Your task to perform on an android device: toggle javascript in the chrome app Image 0: 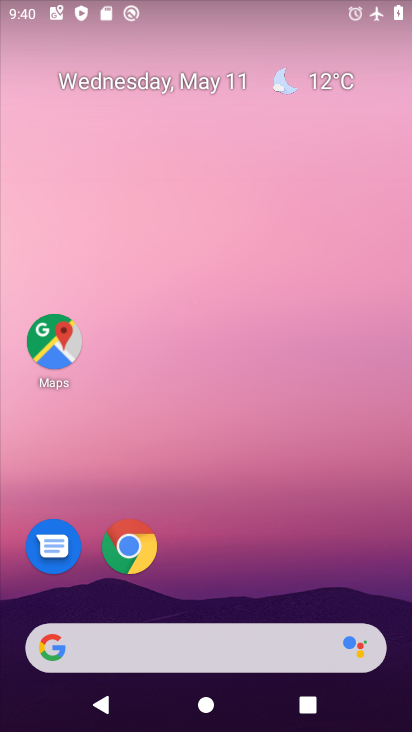
Step 0: click (129, 548)
Your task to perform on an android device: toggle javascript in the chrome app Image 1: 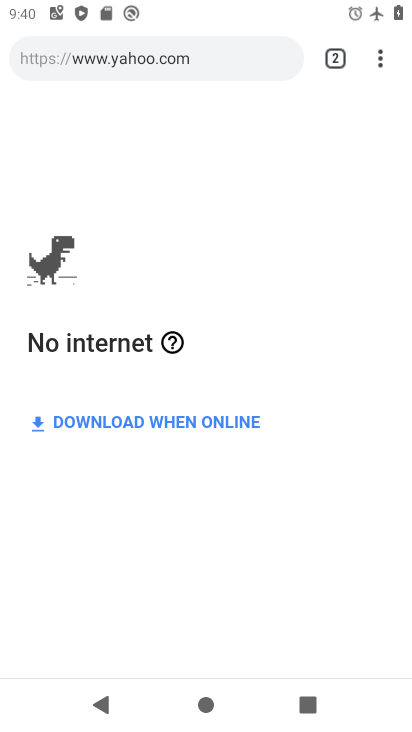
Step 1: click (377, 67)
Your task to perform on an android device: toggle javascript in the chrome app Image 2: 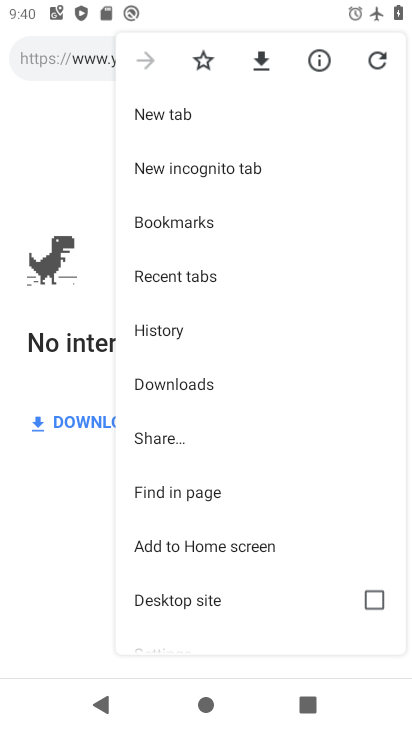
Step 2: drag from (294, 540) to (289, 181)
Your task to perform on an android device: toggle javascript in the chrome app Image 3: 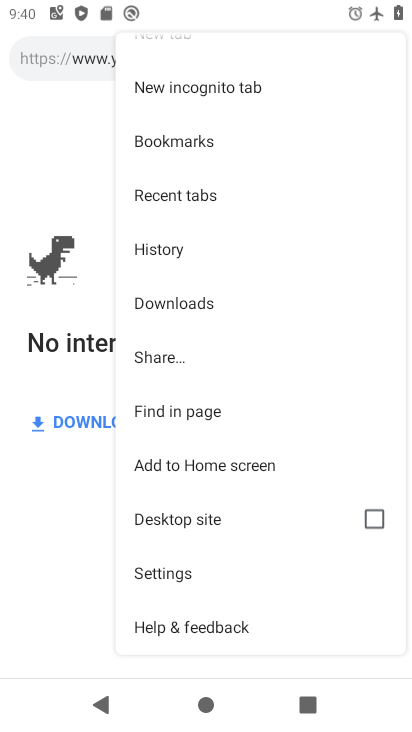
Step 3: click (162, 572)
Your task to perform on an android device: toggle javascript in the chrome app Image 4: 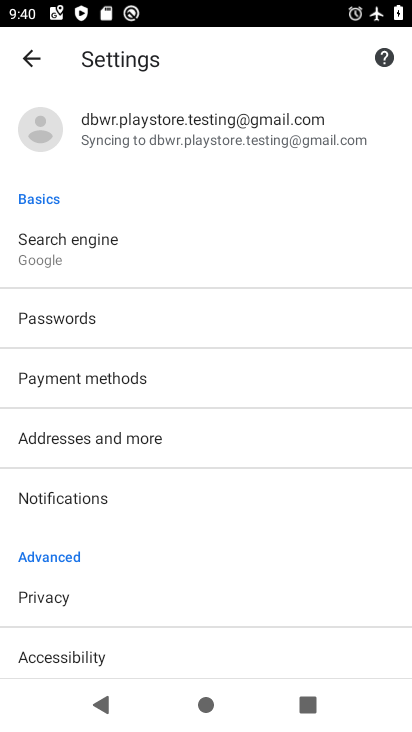
Step 4: drag from (191, 653) to (234, 199)
Your task to perform on an android device: toggle javascript in the chrome app Image 5: 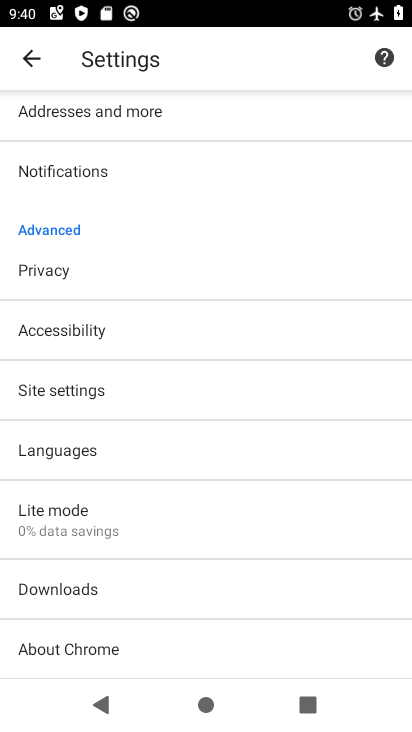
Step 5: click (43, 388)
Your task to perform on an android device: toggle javascript in the chrome app Image 6: 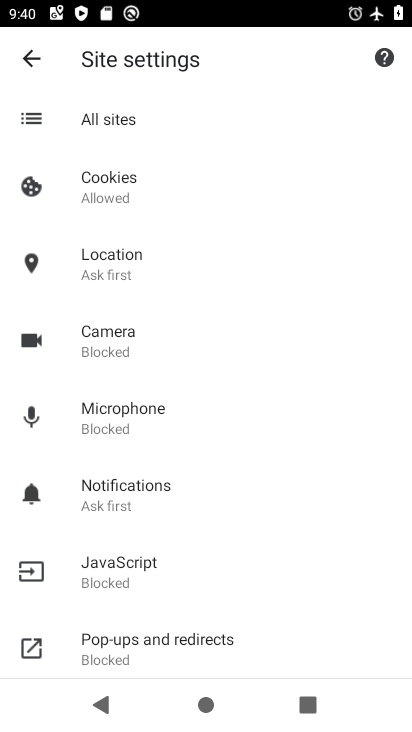
Step 6: click (108, 561)
Your task to perform on an android device: toggle javascript in the chrome app Image 7: 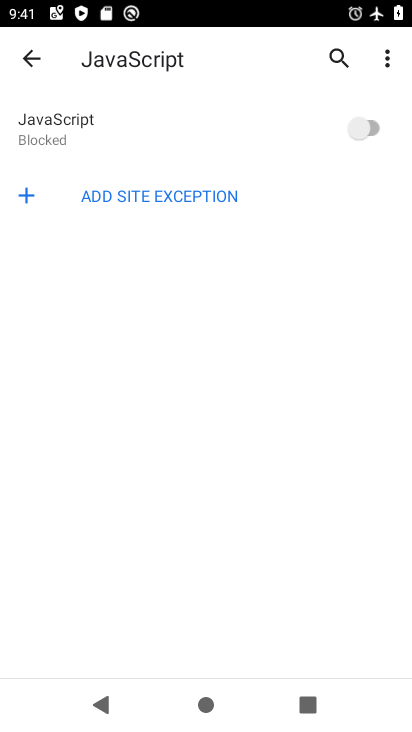
Step 7: click (372, 126)
Your task to perform on an android device: toggle javascript in the chrome app Image 8: 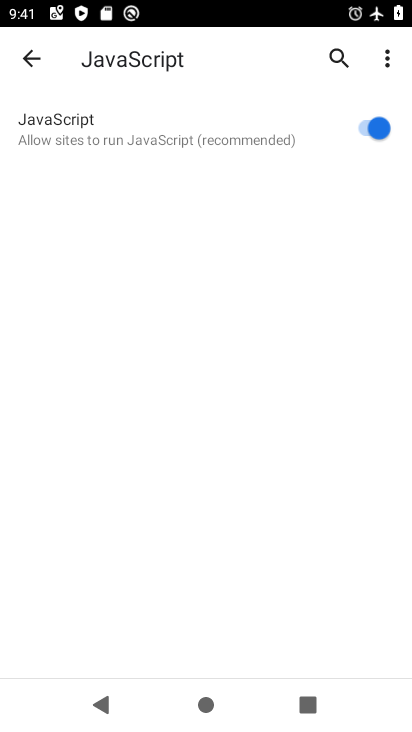
Step 8: task complete